Your task to perform on an android device: Go to Yahoo.com Image 0: 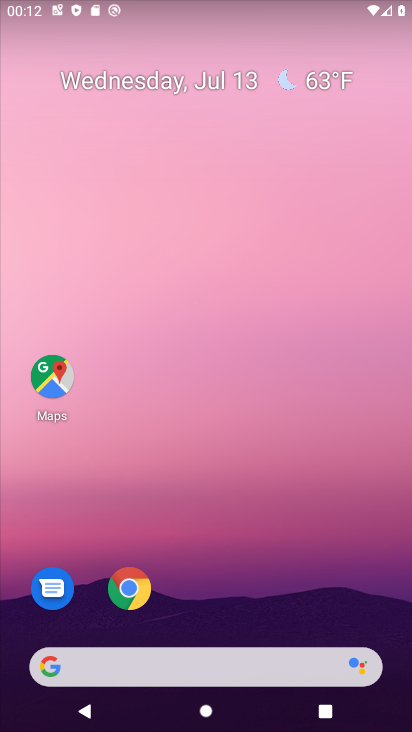
Step 0: click (110, 668)
Your task to perform on an android device: Go to Yahoo.com Image 1: 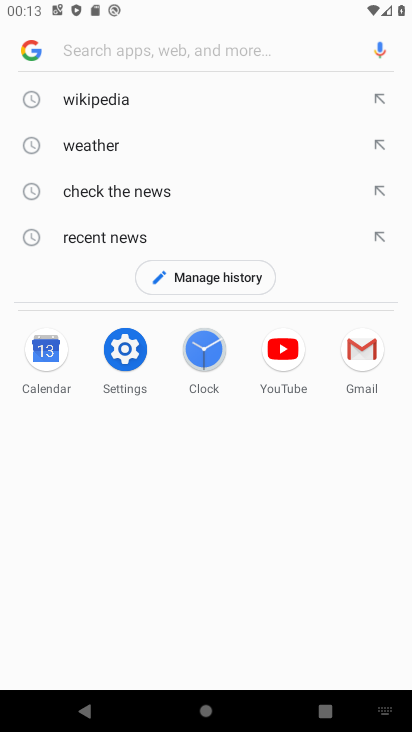
Step 1: type "Yahoo.com"
Your task to perform on an android device: Go to Yahoo.com Image 2: 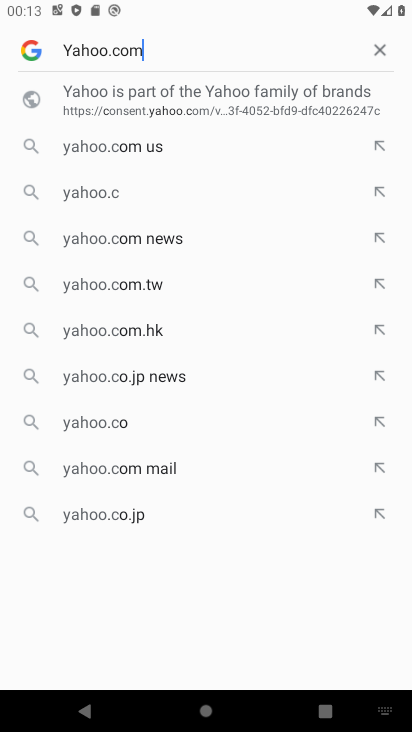
Step 2: type ""
Your task to perform on an android device: Go to Yahoo.com Image 3: 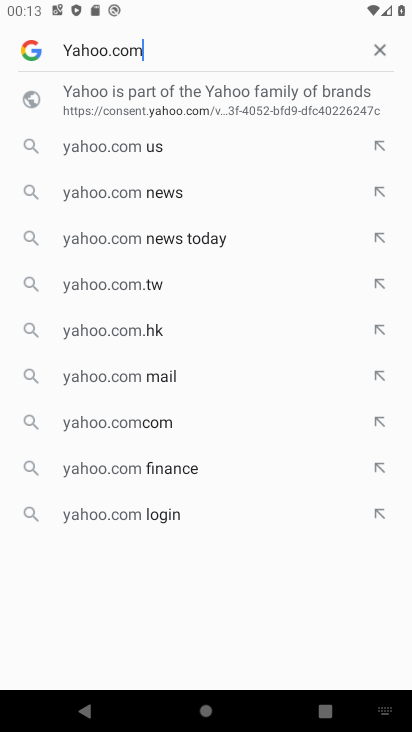
Step 3: type ""
Your task to perform on an android device: Go to Yahoo.com Image 4: 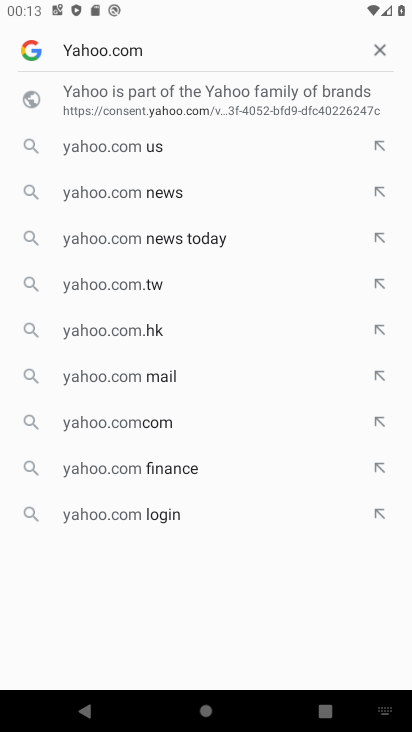
Step 4: type ""
Your task to perform on an android device: Go to Yahoo.com Image 5: 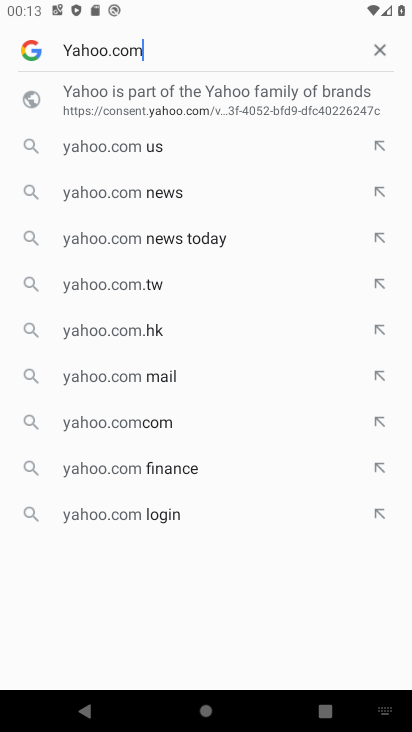
Step 5: type ""
Your task to perform on an android device: Go to Yahoo.com Image 6: 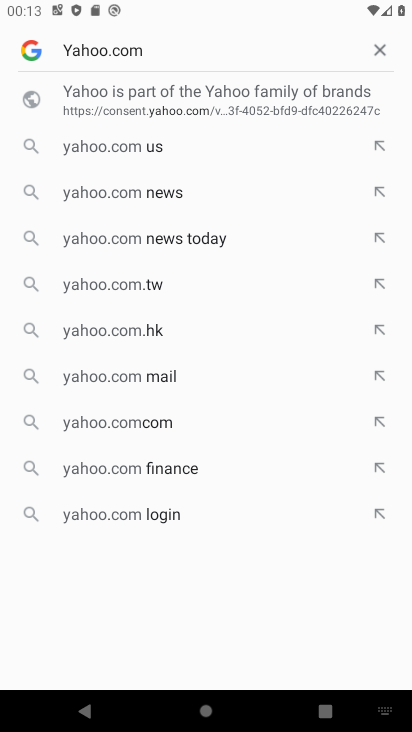
Step 6: task complete